Your task to perform on an android device: set an alarm Image 0: 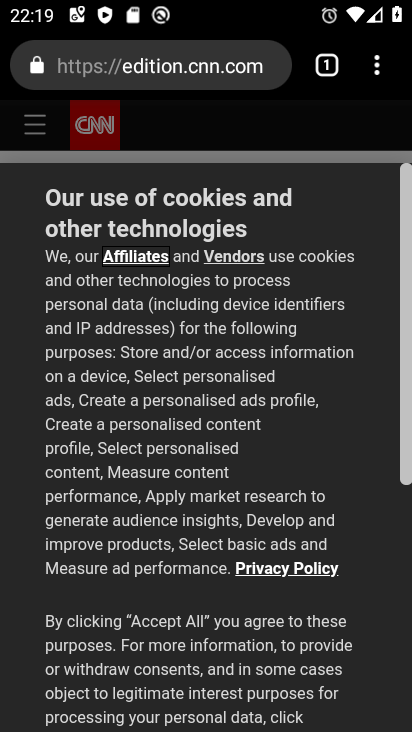
Step 0: press home button
Your task to perform on an android device: set an alarm Image 1: 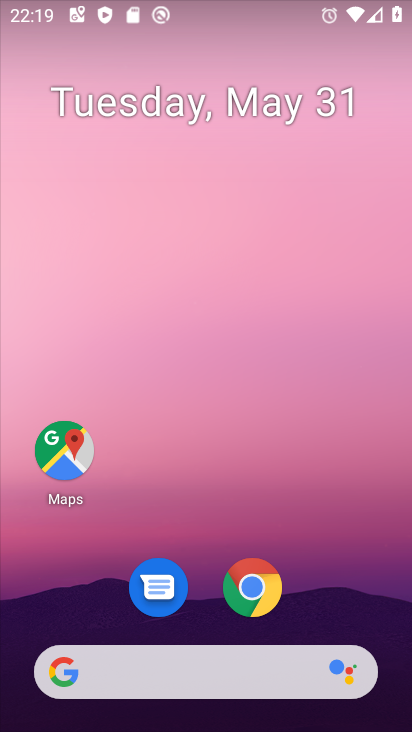
Step 1: drag from (358, 585) to (348, 225)
Your task to perform on an android device: set an alarm Image 2: 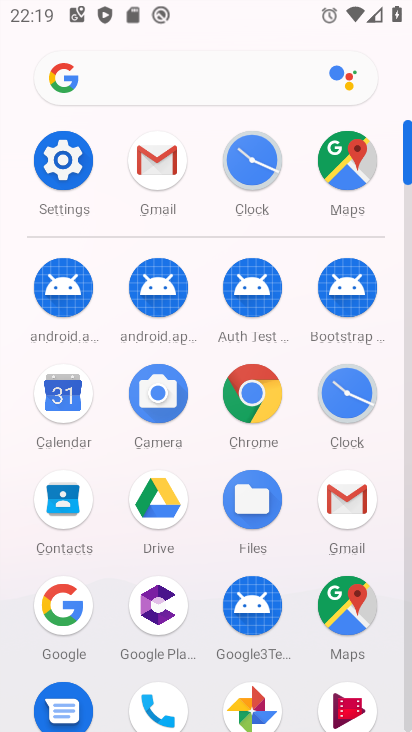
Step 2: click (357, 400)
Your task to perform on an android device: set an alarm Image 3: 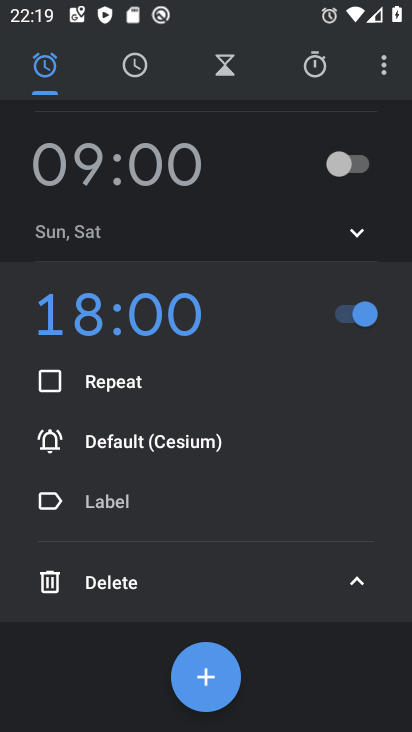
Step 3: click (208, 677)
Your task to perform on an android device: set an alarm Image 4: 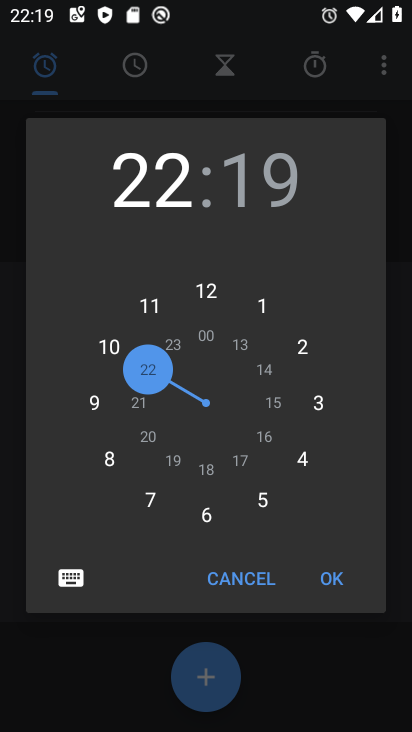
Step 4: click (208, 531)
Your task to perform on an android device: set an alarm Image 5: 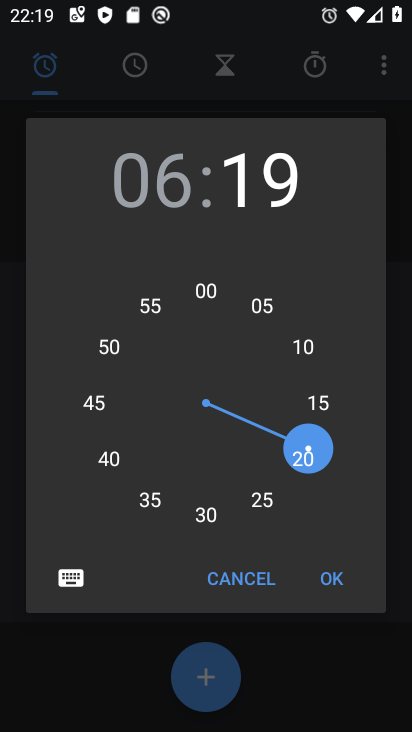
Step 5: click (206, 300)
Your task to perform on an android device: set an alarm Image 6: 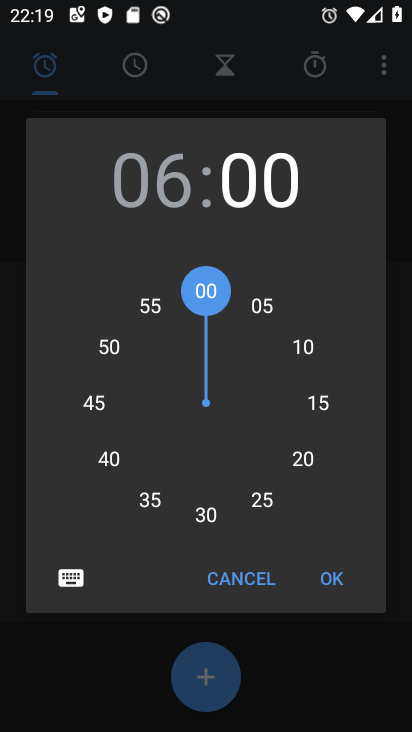
Step 6: click (336, 578)
Your task to perform on an android device: set an alarm Image 7: 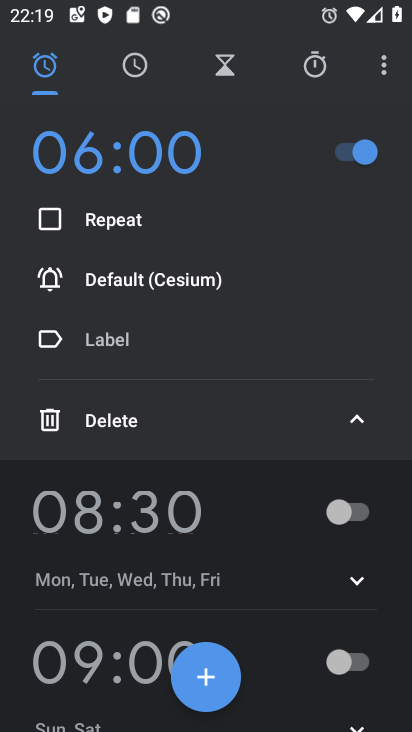
Step 7: task complete